Your task to perform on an android device: toggle data saver in the chrome app Image 0: 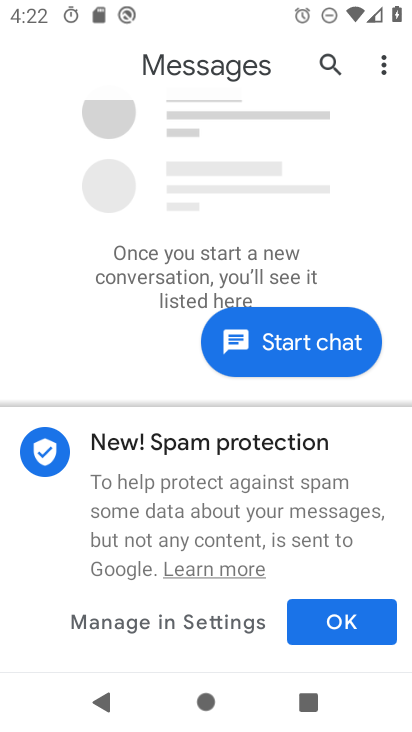
Step 0: drag from (373, 592) to (298, 153)
Your task to perform on an android device: toggle data saver in the chrome app Image 1: 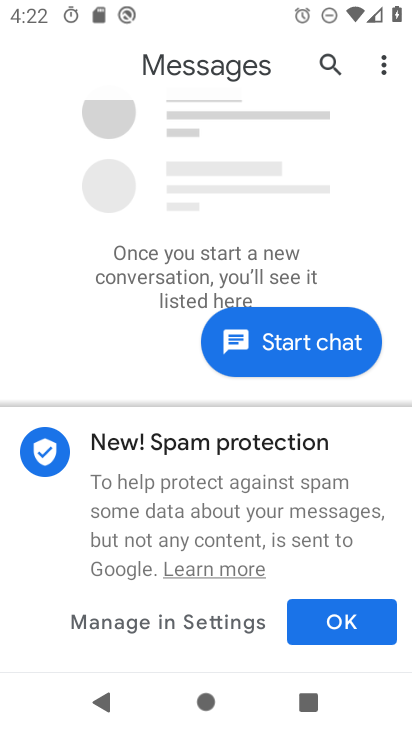
Step 1: press home button
Your task to perform on an android device: toggle data saver in the chrome app Image 2: 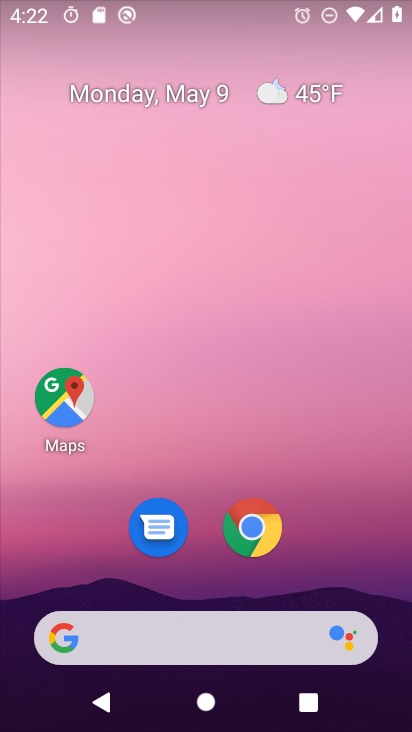
Step 2: drag from (333, 518) to (187, 128)
Your task to perform on an android device: toggle data saver in the chrome app Image 3: 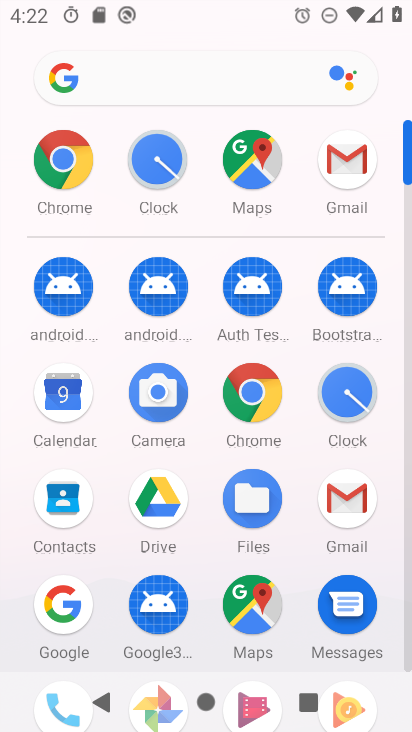
Step 3: click (81, 143)
Your task to perform on an android device: toggle data saver in the chrome app Image 4: 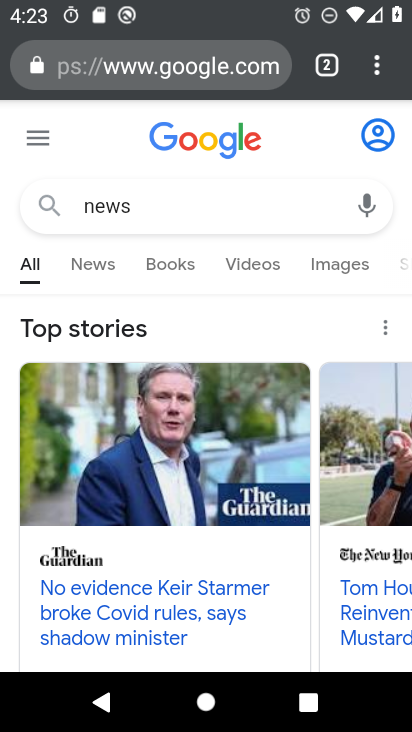
Step 4: drag from (381, 73) to (218, 593)
Your task to perform on an android device: toggle data saver in the chrome app Image 5: 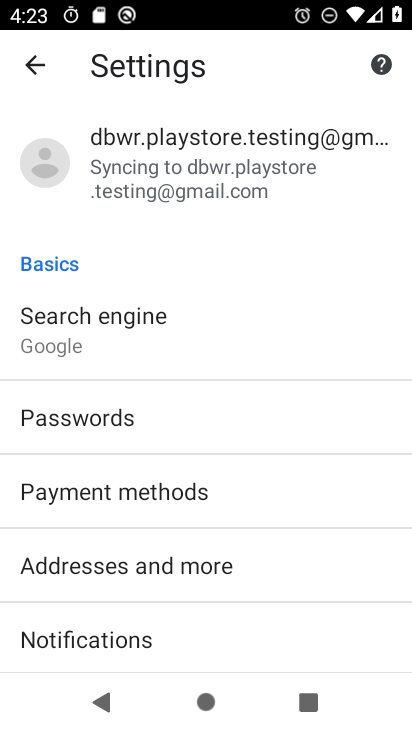
Step 5: drag from (229, 614) to (222, 246)
Your task to perform on an android device: toggle data saver in the chrome app Image 6: 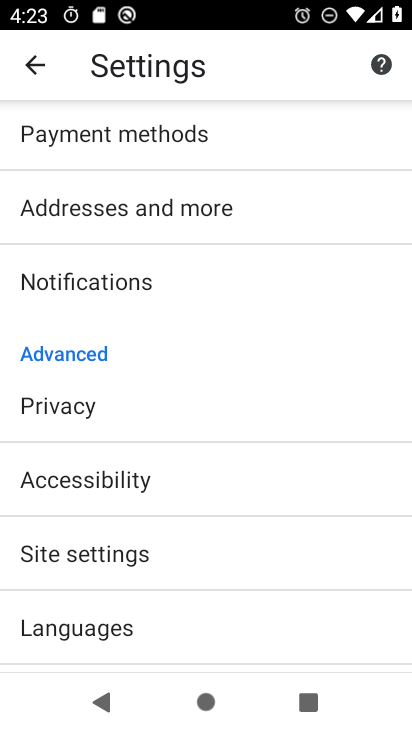
Step 6: drag from (232, 554) to (231, 292)
Your task to perform on an android device: toggle data saver in the chrome app Image 7: 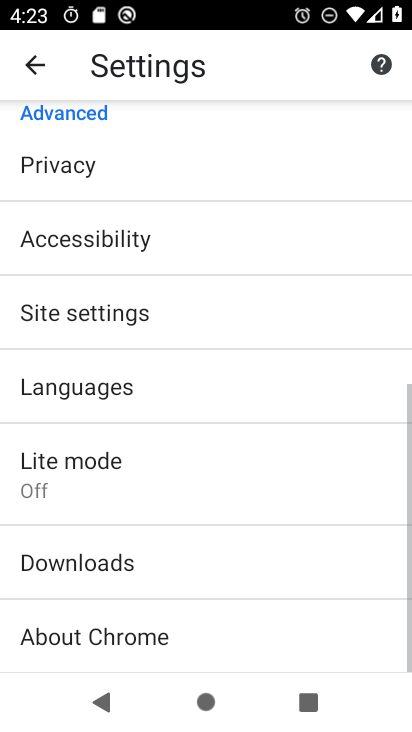
Step 7: click (240, 479)
Your task to perform on an android device: toggle data saver in the chrome app Image 8: 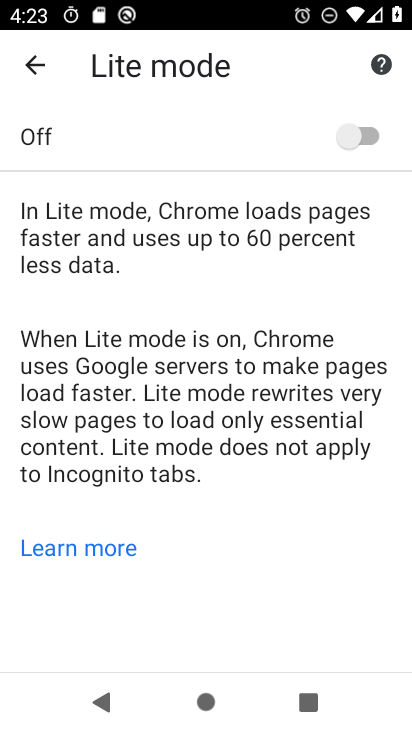
Step 8: click (365, 137)
Your task to perform on an android device: toggle data saver in the chrome app Image 9: 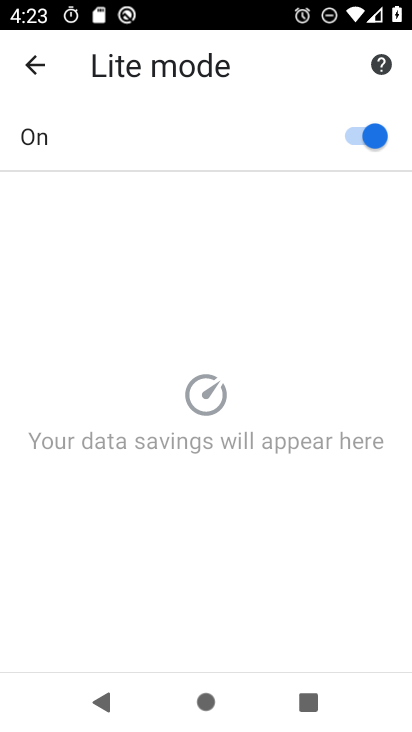
Step 9: task complete